Your task to perform on an android device: Go to ESPN.com Image 0: 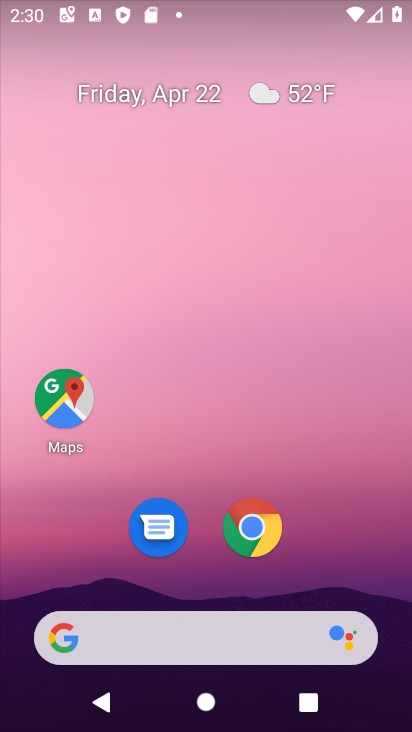
Step 0: click (245, 530)
Your task to perform on an android device: Go to ESPN.com Image 1: 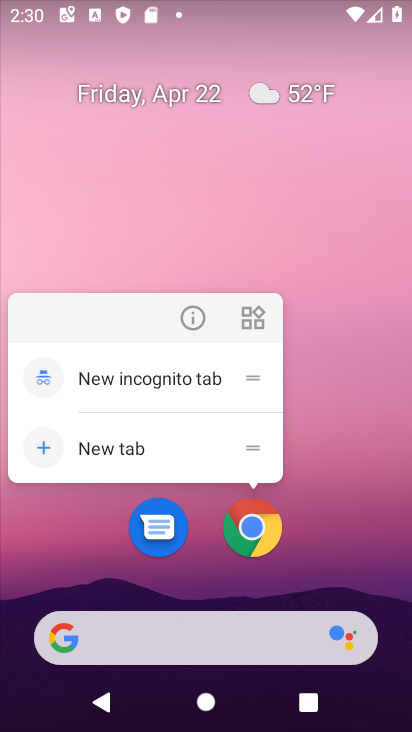
Step 1: click (245, 529)
Your task to perform on an android device: Go to ESPN.com Image 2: 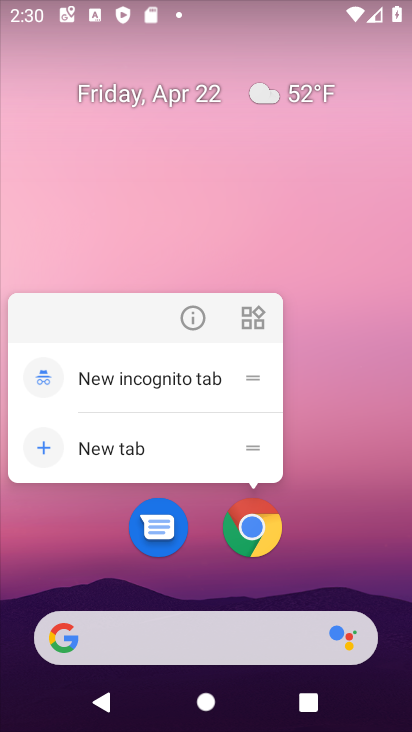
Step 2: click (244, 528)
Your task to perform on an android device: Go to ESPN.com Image 3: 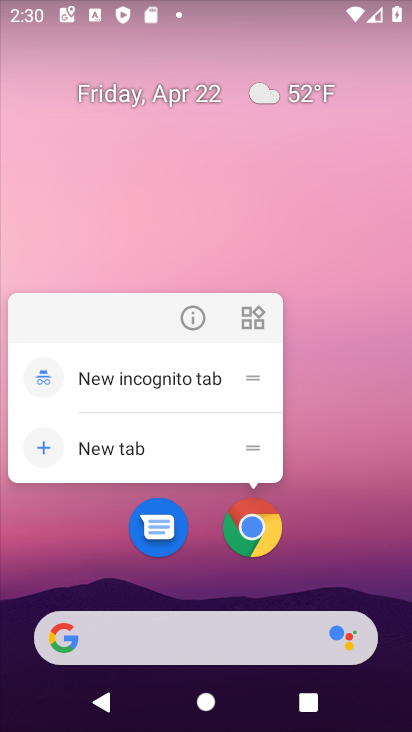
Step 3: click (248, 530)
Your task to perform on an android device: Go to ESPN.com Image 4: 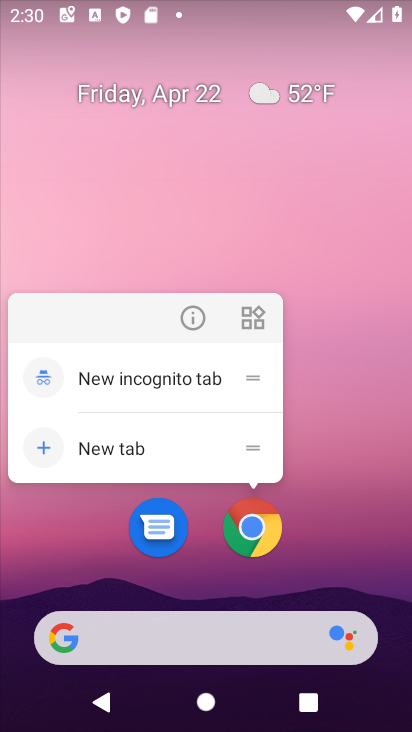
Step 4: click (248, 530)
Your task to perform on an android device: Go to ESPN.com Image 5: 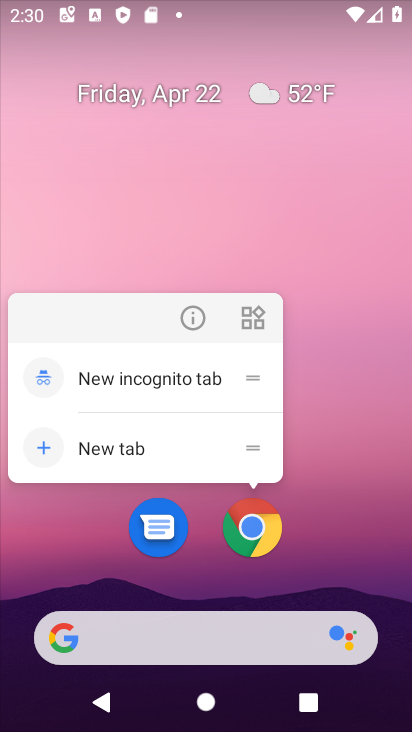
Step 5: click (248, 530)
Your task to perform on an android device: Go to ESPN.com Image 6: 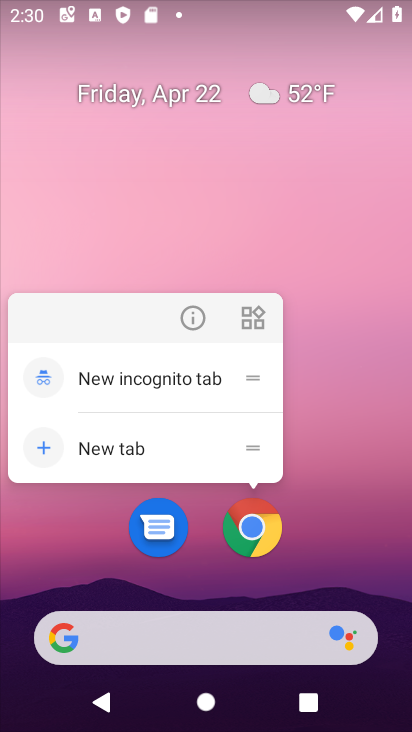
Step 6: click (248, 530)
Your task to perform on an android device: Go to ESPN.com Image 7: 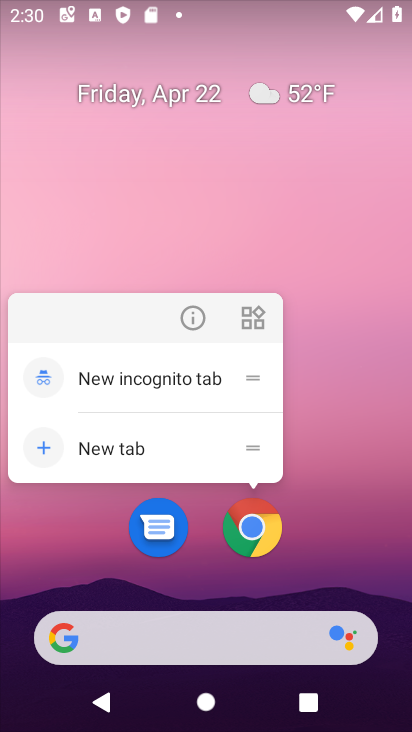
Step 7: click (248, 530)
Your task to perform on an android device: Go to ESPN.com Image 8: 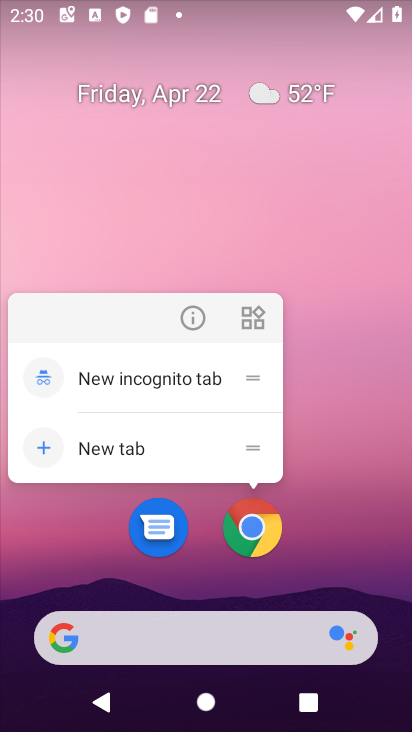
Step 8: click (248, 530)
Your task to perform on an android device: Go to ESPN.com Image 9: 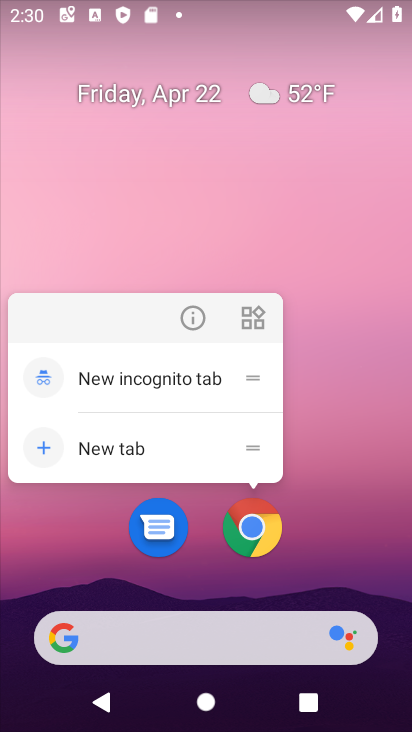
Step 9: click (248, 530)
Your task to perform on an android device: Go to ESPN.com Image 10: 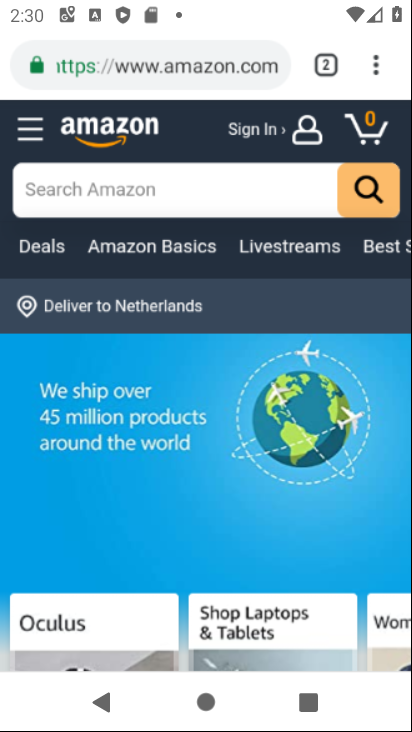
Step 10: click (248, 530)
Your task to perform on an android device: Go to ESPN.com Image 11: 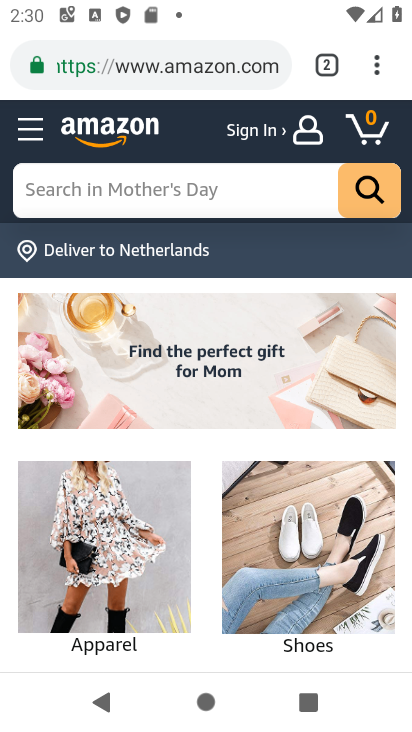
Step 11: click (249, 66)
Your task to perform on an android device: Go to ESPN.com Image 12: 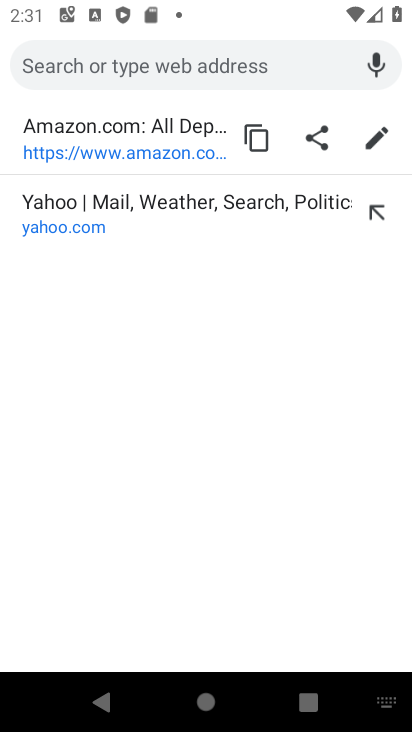
Step 12: type "espn.com"
Your task to perform on an android device: Go to ESPN.com Image 13: 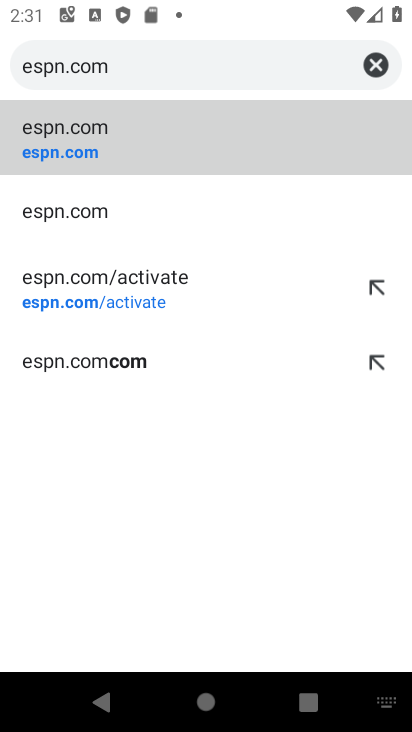
Step 13: click (69, 143)
Your task to perform on an android device: Go to ESPN.com Image 14: 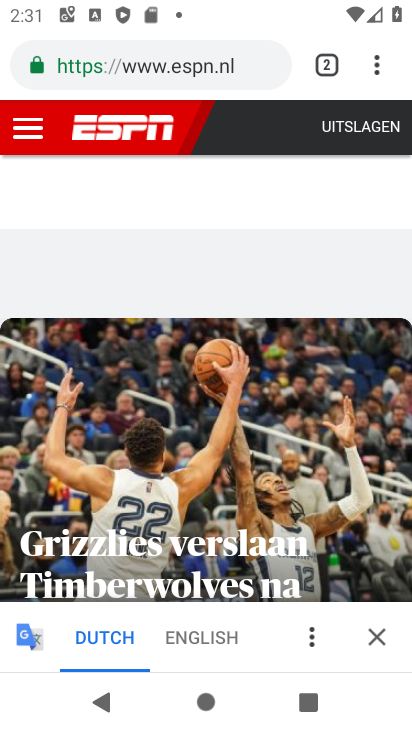
Step 14: task complete